Your task to perform on an android device: make emails show in primary in the gmail app Image 0: 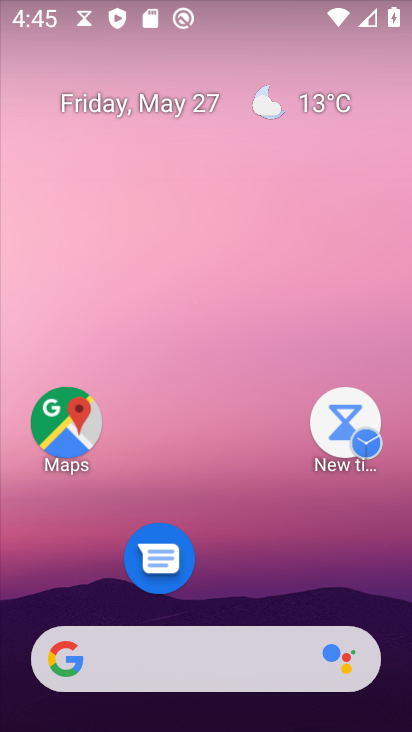
Step 0: drag from (290, 718) to (0, 62)
Your task to perform on an android device: make emails show in primary in the gmail app Image 1: 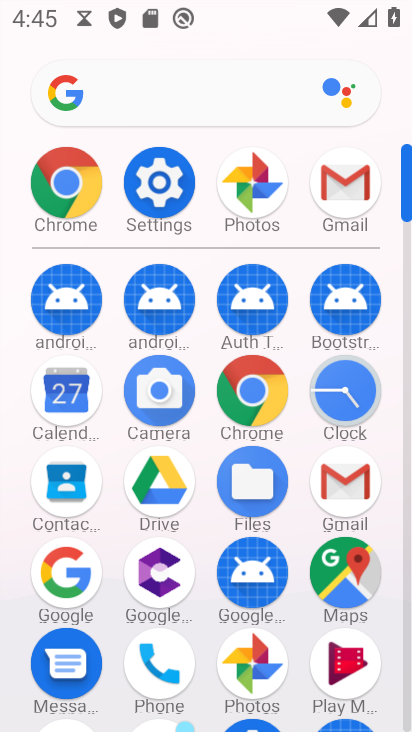
Step 1: click (330, 488)
Your task to perform on an android device: make emails show in primary in the gmail app Image 2: 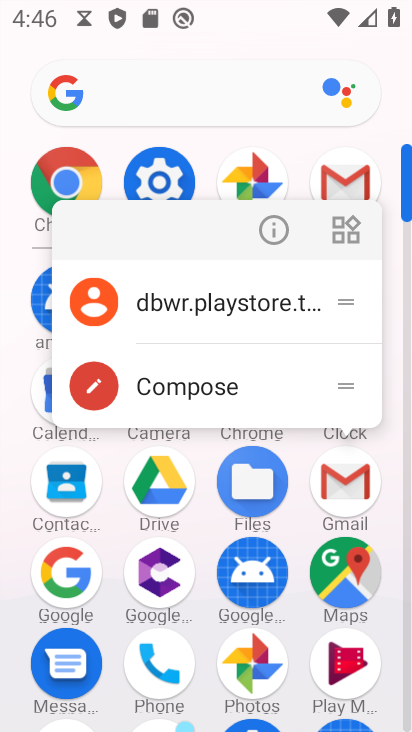
Step 2: click (206, 386)
Your task to perform on an android device: make emails show in primary in the gmail app Image 3: 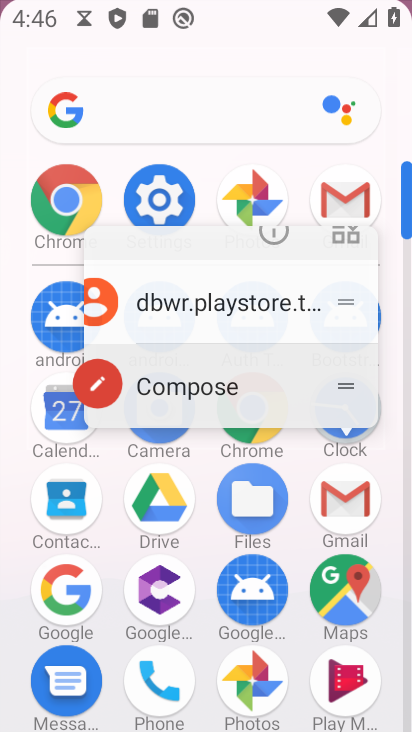
Step 3: click (206, 386)
Your task to perform on an android device: make emails show in primary in the gmail app Image 4: 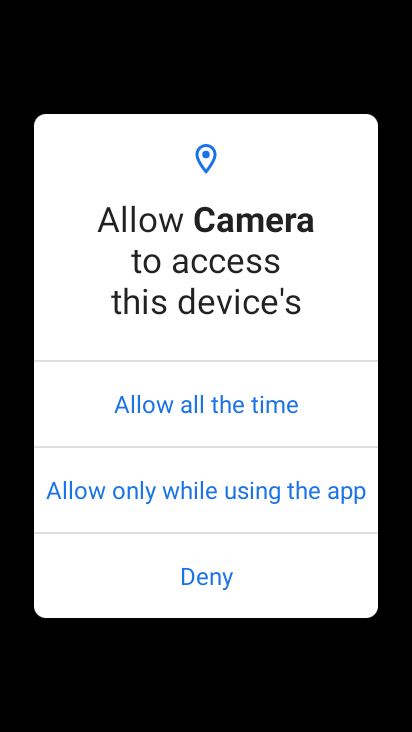
Step 4: press back button
Your task to perform on an android device: make emails show in primary in the gmail app Image 5: 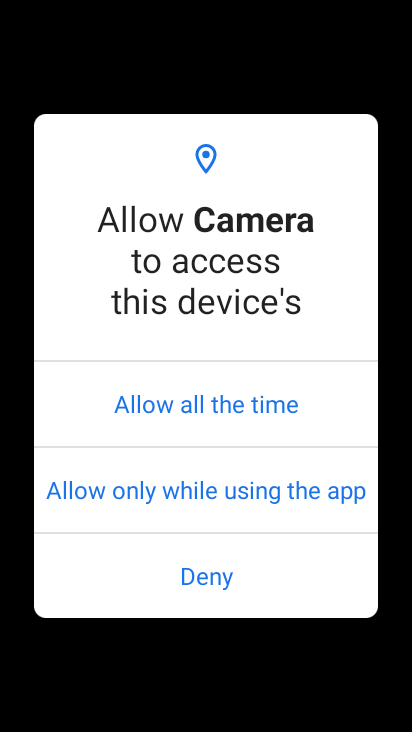
Step 5: press back button
Your task to perform on an android device: make emails show in primary in the gmail app Image 6: 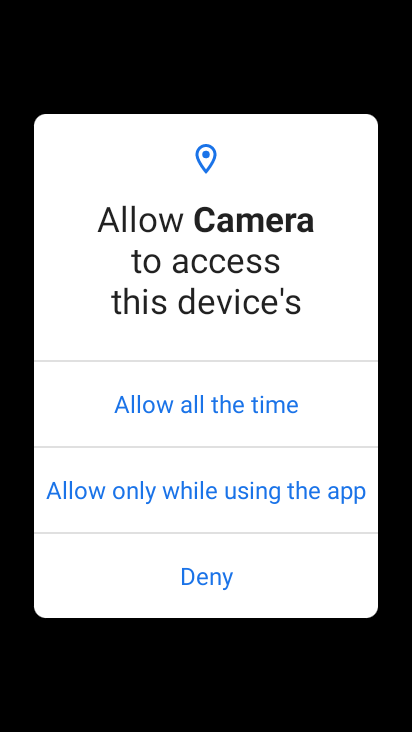
Step 6: press back button
Your task to perform on an android device: make emails show in primary in the gmail app Image 7: 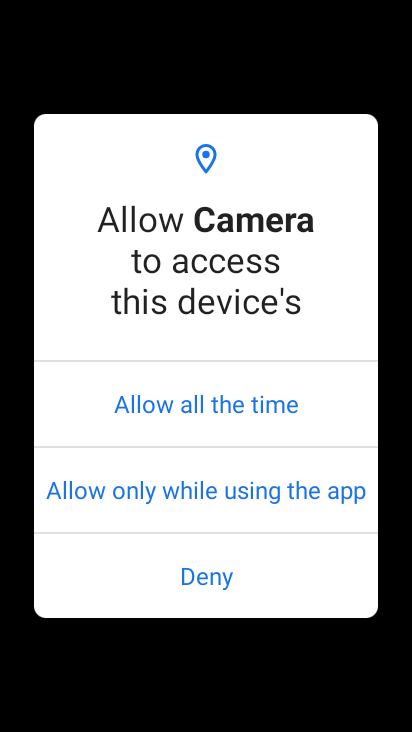
Step 7: press back button
Your task to perform on an android device: make emails show in primary in the gmail app Image 8: 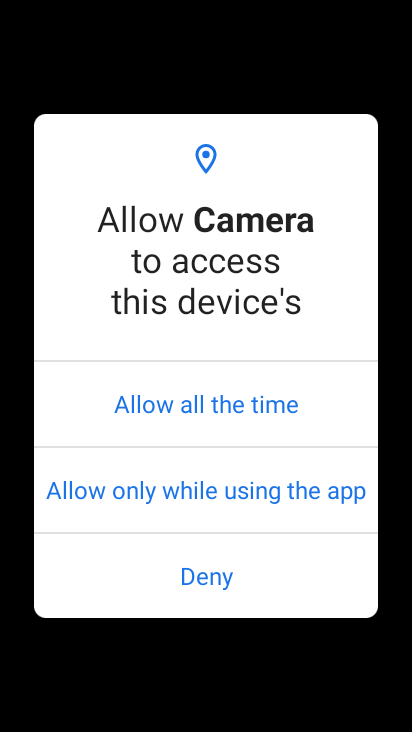
Step 8: press back button
Your task to perform on an android device: make emails show in primary in the gmail app Image 9: 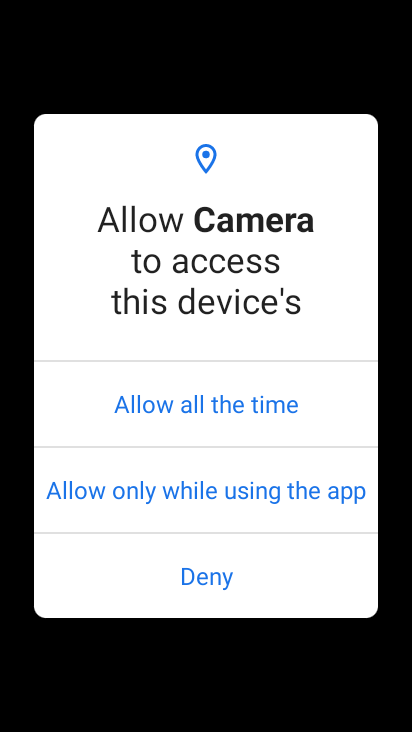
Step 9: press home button
Your task to perform on an android device: make emails show in primary in the gmail app Image 10: 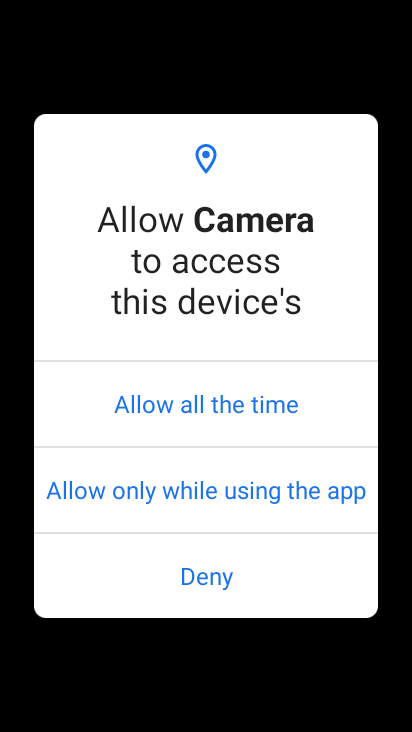
Step 10: press home button
Your task to perform on an android device: make emails show in primary in the gmail app Image 11: 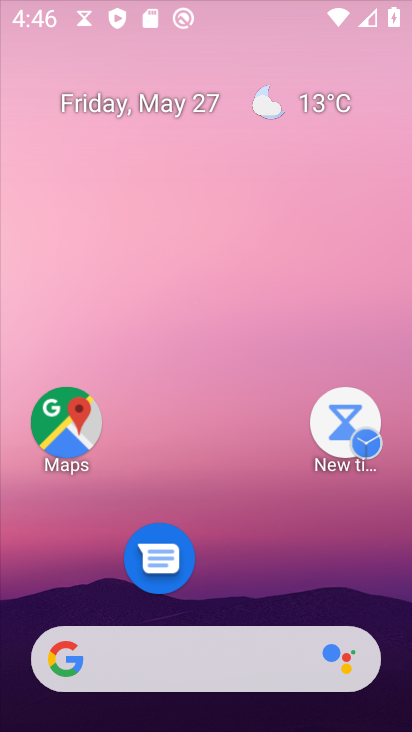
Step 11: press home button
Your task to perform on an android device: make emails show in primary in the gmail app Image 12: 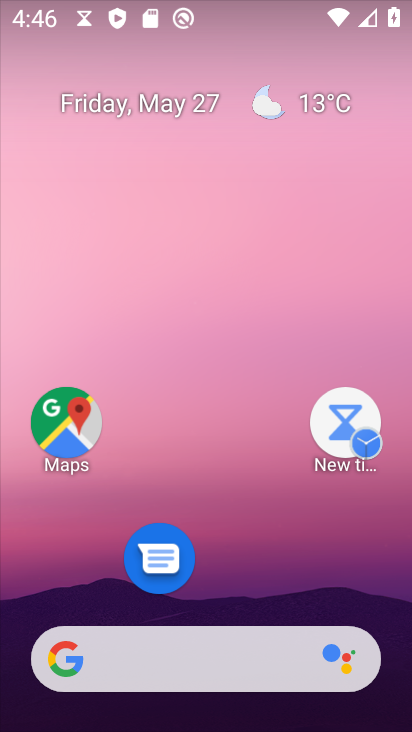
Step 12: press home button
Your task to perform on an android device: make emails show in primary in the gmail app Image 13: 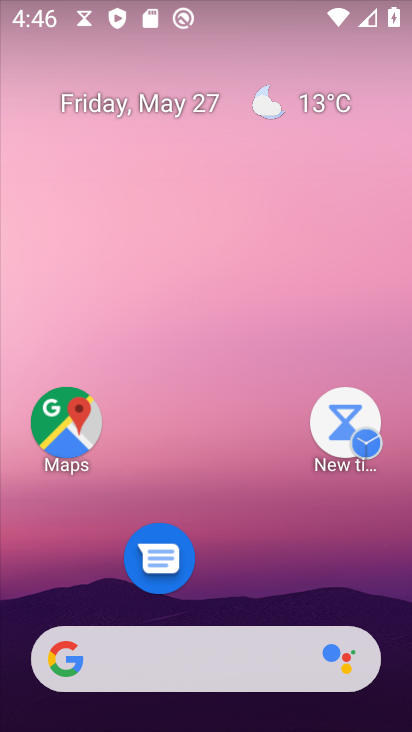
Step 13: press home button
Your task to perform on an android device: make emails show in primary in the gmail app Image 14: 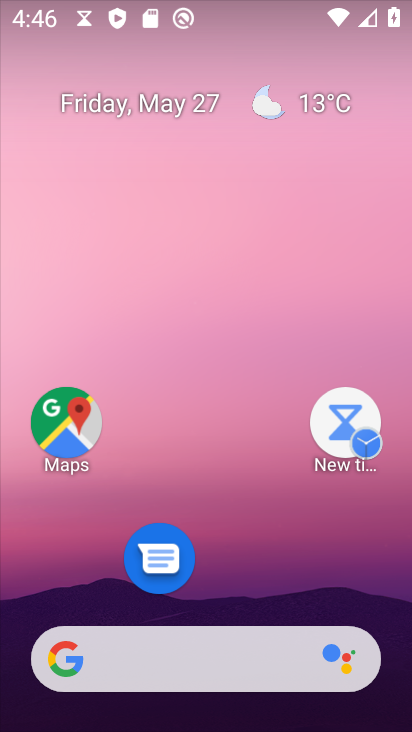
Step 14: drag from (280, 720) to (150, 204)
Your task to perform on an android device: make emails show in primary in the gmail app Image 15: 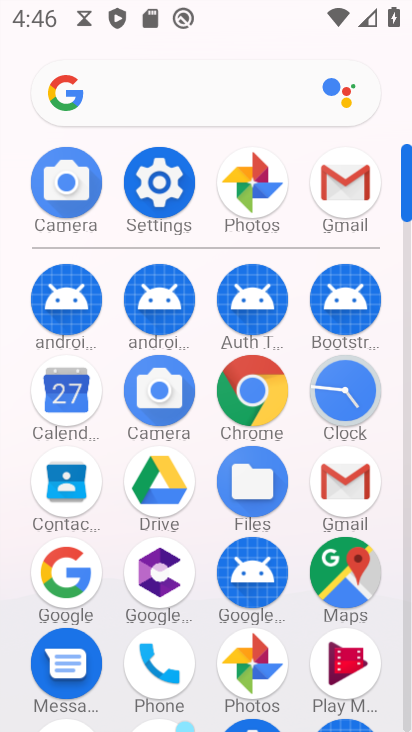
Step 15: click (347, 475)
Your task to perform on an android device: make emails show in primary in the gmail app Image 16: 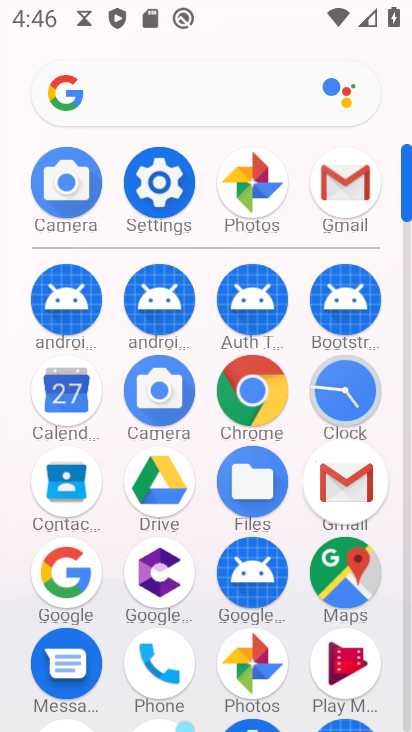
Step 16: click (348, 475)
Your task to perform on an android device: make emails show in primary in the gmail app Image 17: 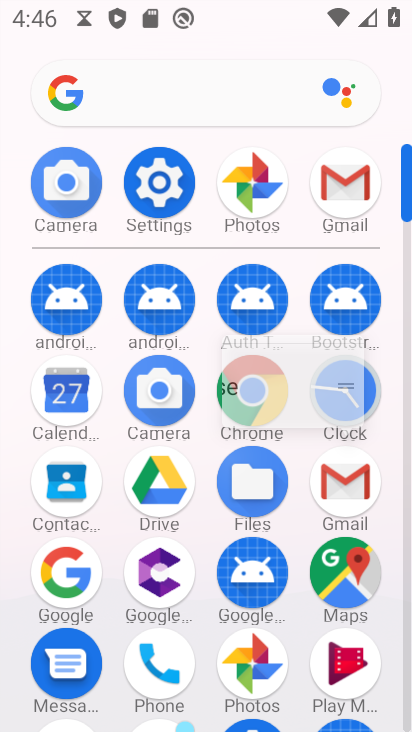
Step 17: click (349, 474)
Your task to perform on an android device: make emails show in primary in the gmail app Image 18: 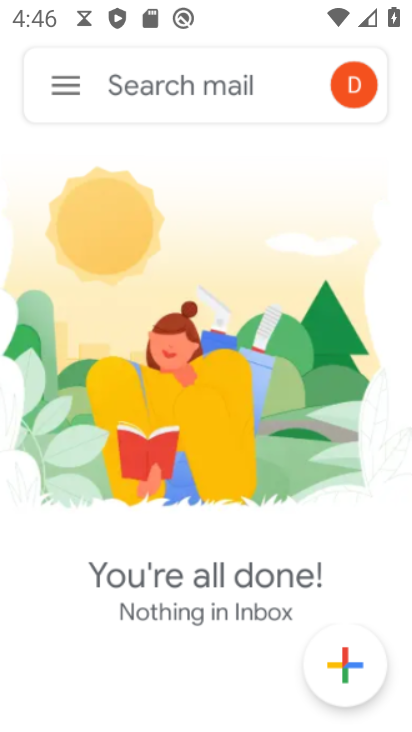
Step 18: click (347, 475)
Your task to perform on an android device: make emails show in primary in the gmail app Image 19: 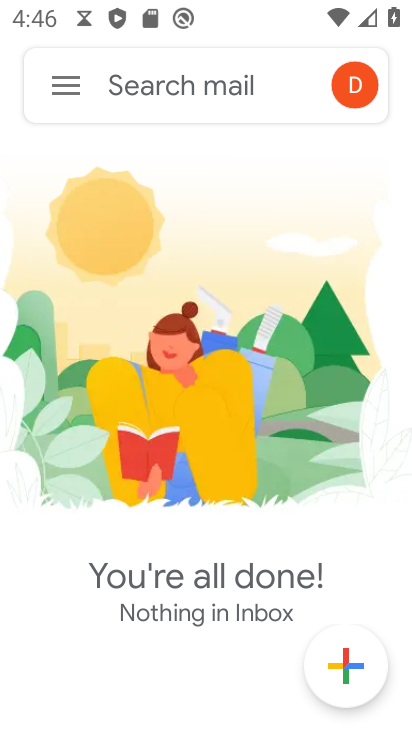
Step 19: click (347, 475)
Your task to perform on an android device: make emails show in primary in the gmail app Image 20: 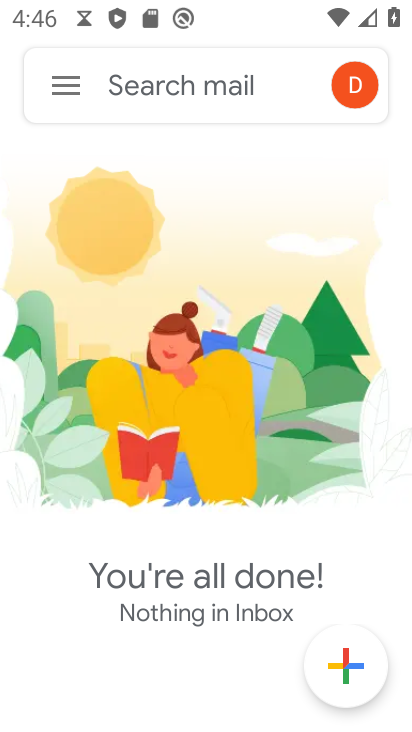
Step 20: click (67, 82)
Your task to perform on an android device: make emails show in primary in the gmail app Image 21: 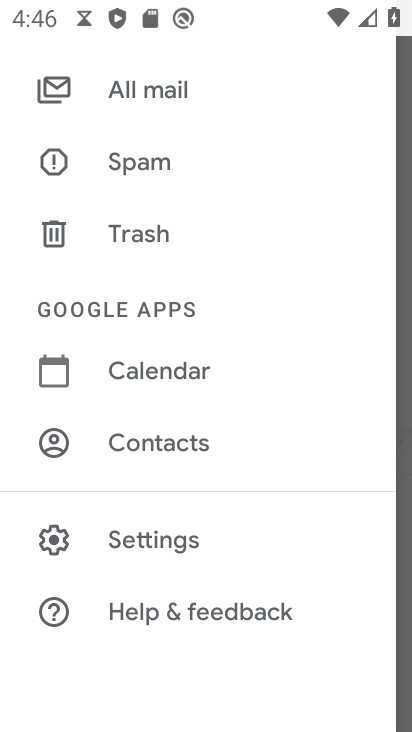
Step 21: click (154, 524)
Your task to perform on an android device: make emails show in primary in the gmail app Image 22: 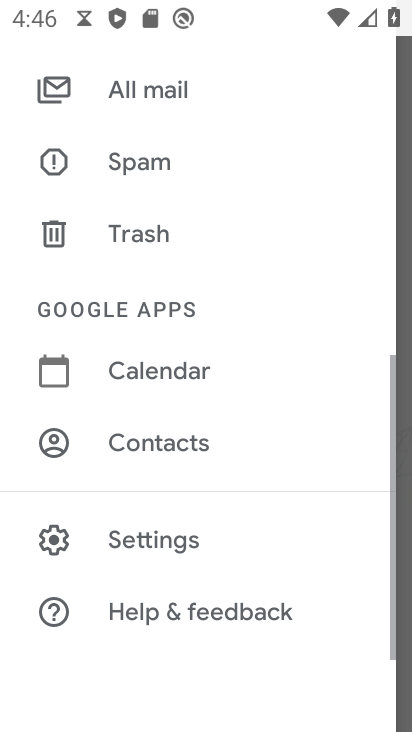
Step 22: click (161, 554)
Your task to perform on an android device: make emails show in primary in the gmail app Image 23: 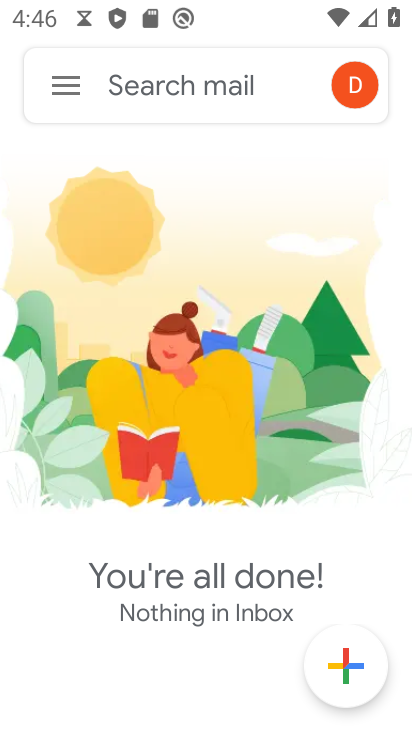
Step 23: click (163, 558)
Your task to perform on an android device: make emails show in primary in the gmail app Image 24: 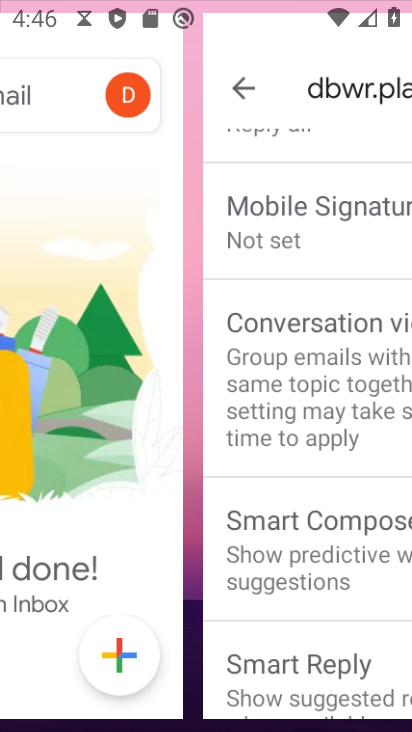
Step 24: click (163, 558)
Your task to perform on an android device: make emails show in primary in the gmail app Image 25: 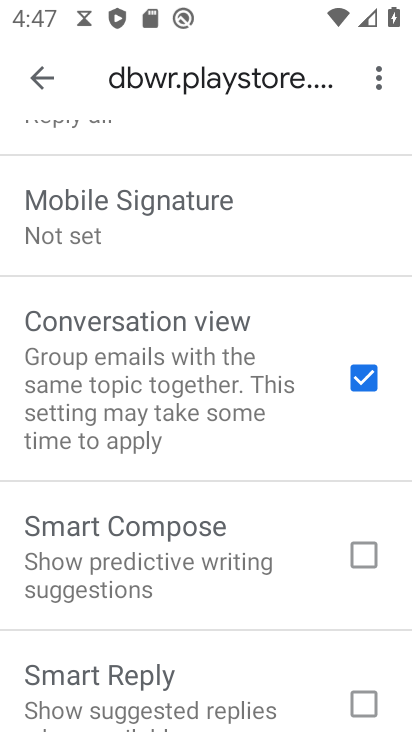
Step 25: drag from (250, 449) to (261, 213)
Your task to perform on an android device: make emails show in primary in the gmail app Image 26: 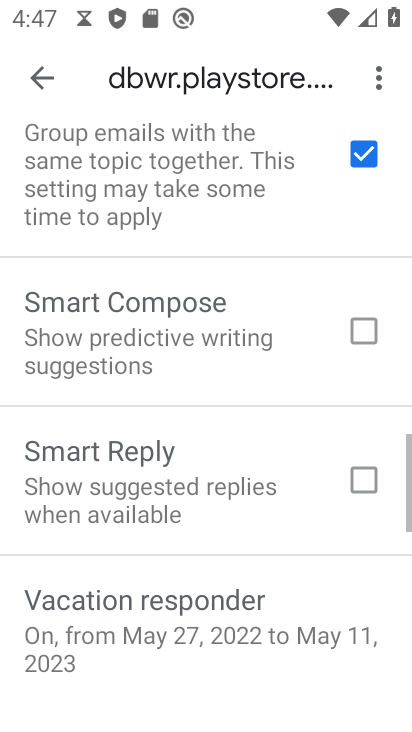
Step 26: drag from (231, 497) to (244, 215)
Your task to perform on an android device: make emails show in primary in the gmail app Image 27: 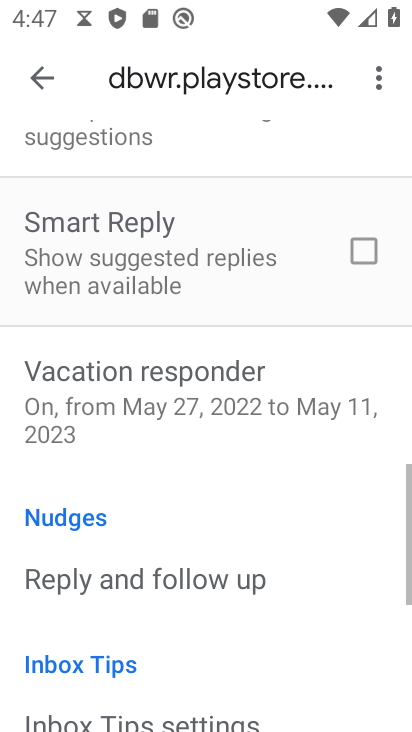
Step 27: click (257, 204)
Your task to perform on an android device: make emails show in primary in the gmail app Image 28: 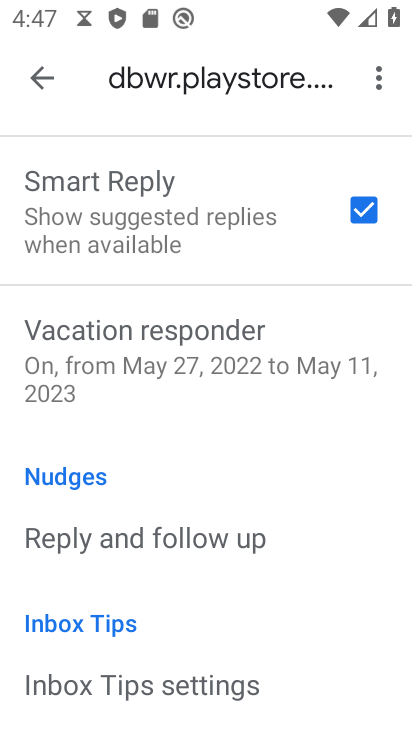
Step 28: drag from (215, 225) to (216, 561)
Your task to perform on an android device: make emails show in primary in the gmail app Image 29: 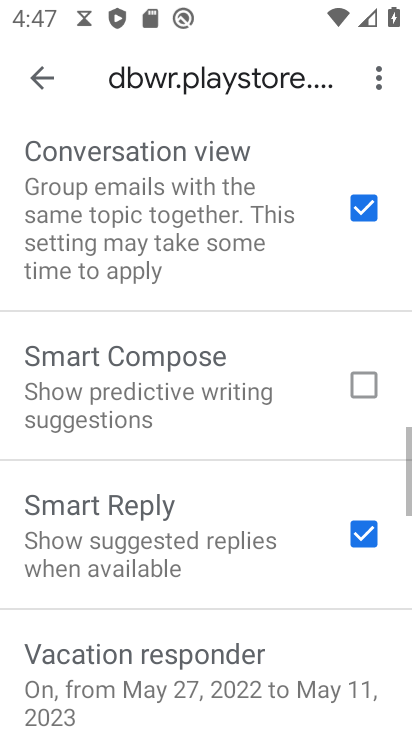
Step 29: drag from (132, 312) to (201, 538)
Your task to perform on an android device: make emails show in primary in the gmail app Image 30: 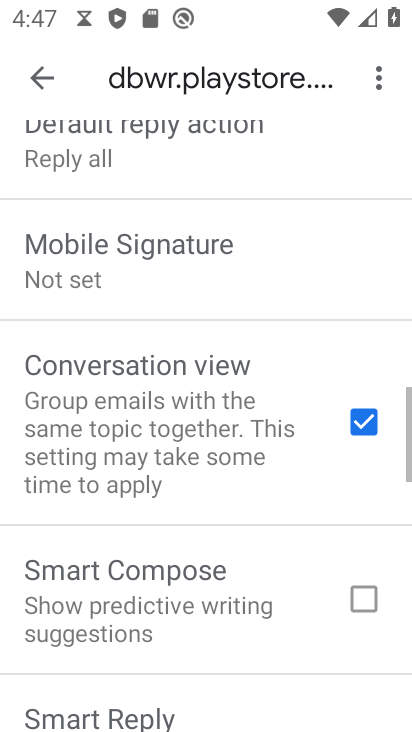
Step 30: drag from (159, 260) to (203, 567)
Your task to perform on an android device: make emails show in primary in the gmail app Image 31: 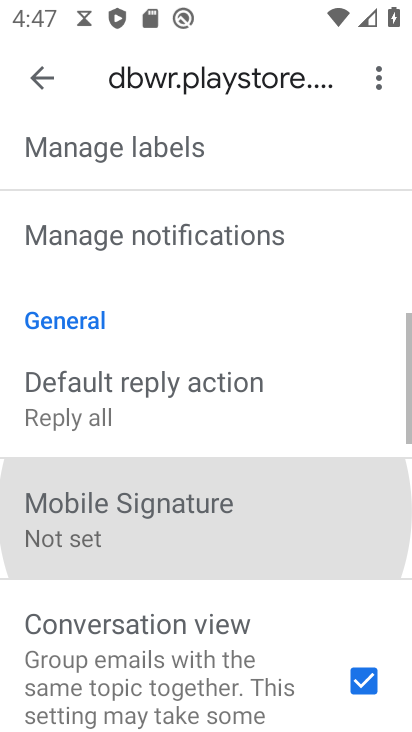
Step 31: drag from (136, 219) to (261, 640)
Your task to perform on an android device: make emails show in primary in the gmail app Image 32: 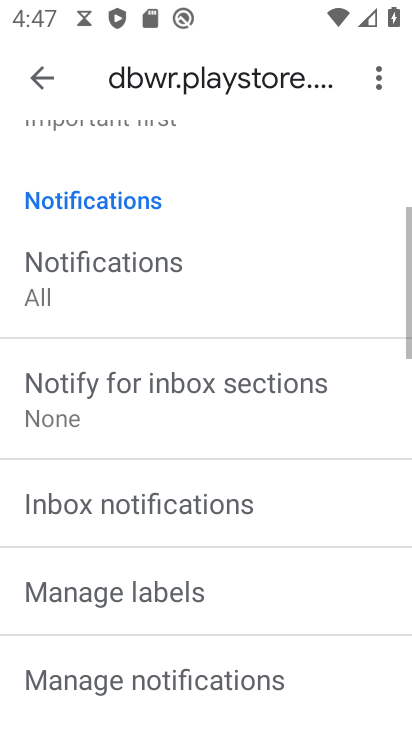
Step 32: drag from (224, 461) to (277, 676)
Your task to perform on an android device: make emails show in primary in the gmail app Image 33: 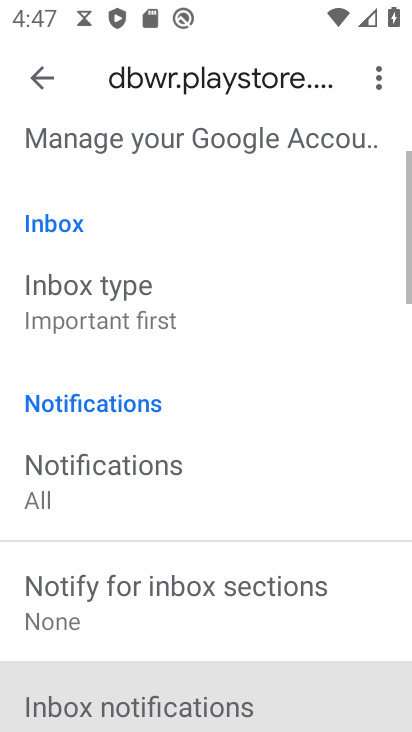
Step 33: drag from (178, 320) to (268, 639)
Your task to perform on an android device: make emails show in primary in the gmail app Image 34: 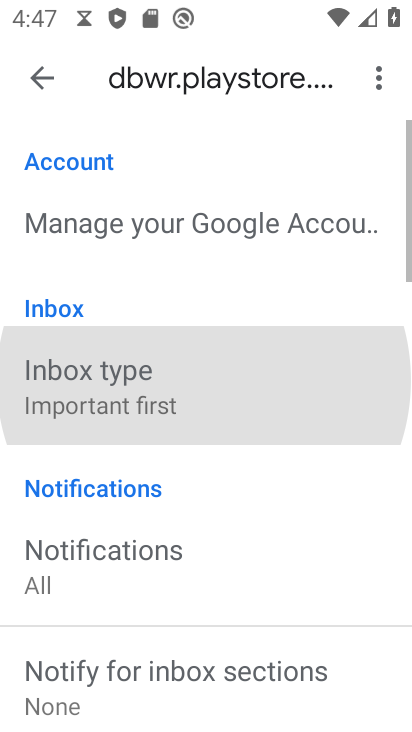
Step 34: drag from (138, 265) to (239, 658)
Your task to perform on an android device: make emails show in primary in the gmail app Image 35: 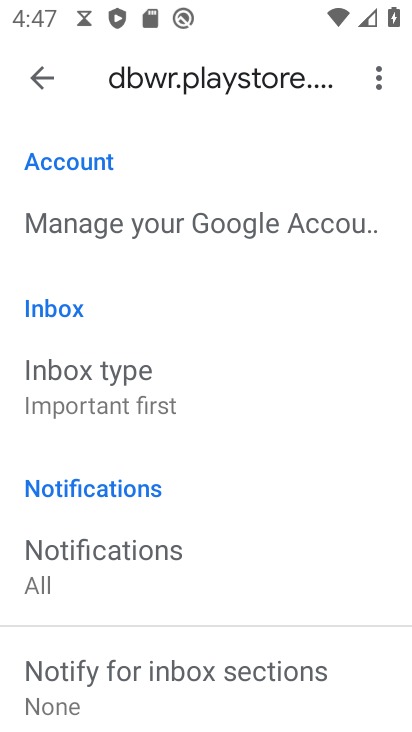
Step 35: click (78, 395)
Your task to perform on an android device: make emails show in primary in the gmail app Image 36: 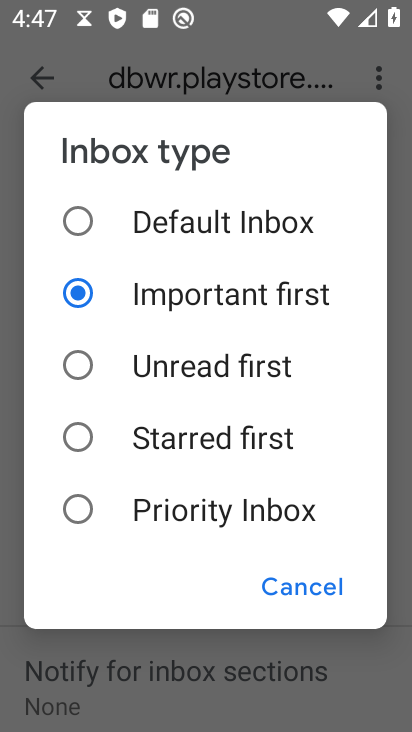
Step 36: click (74, 216)
Your task to perform on an android device: make emails show in primary in the gmail app Image 37: 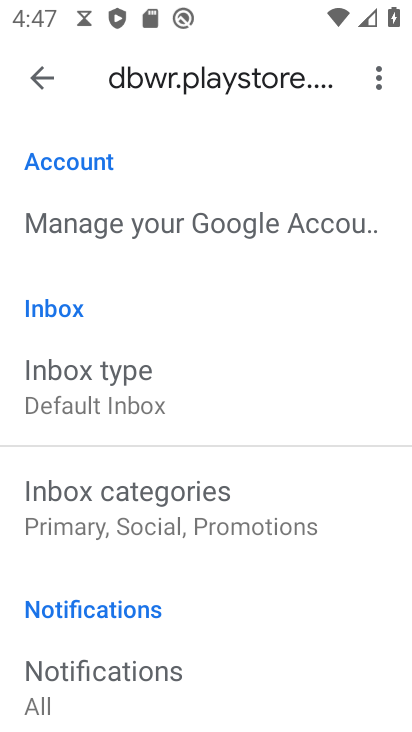
Step 37: click (124, 511)
Your task to perform on an android device: make emails show in primary in the gmail app Image 38: 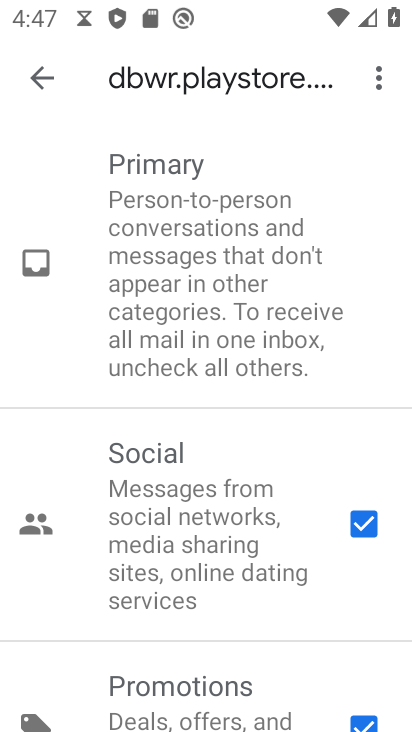
Step 38: click (140, 280)
Your task to perform on an android device: make emails show in primary in the gmail app Image 39: 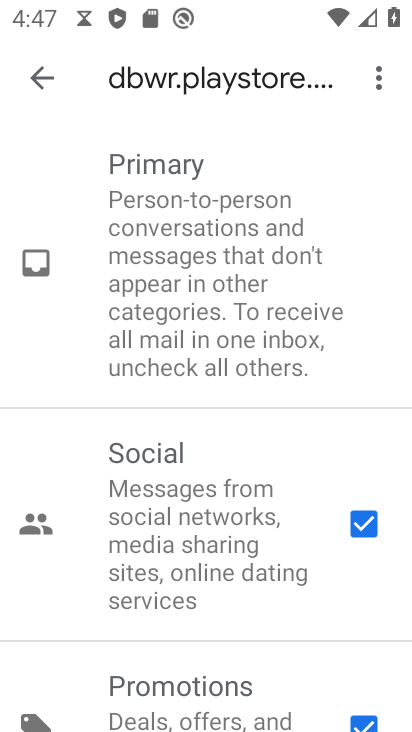
Step 39: task complete